Your task to perform on an android device: Go to settings Image 0: 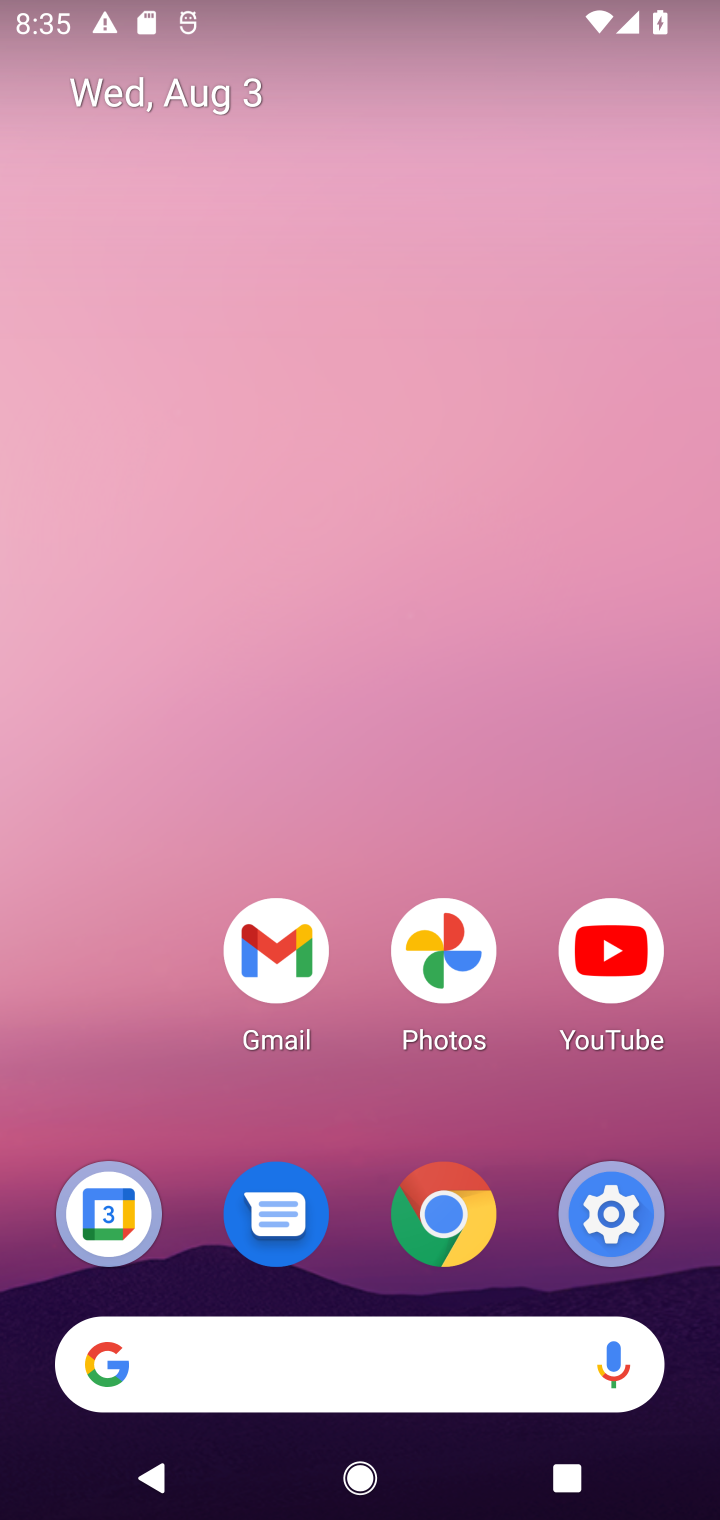
Step 0: click (619, 1225)
Your task to perform on an android device: Go to settings Image 1: 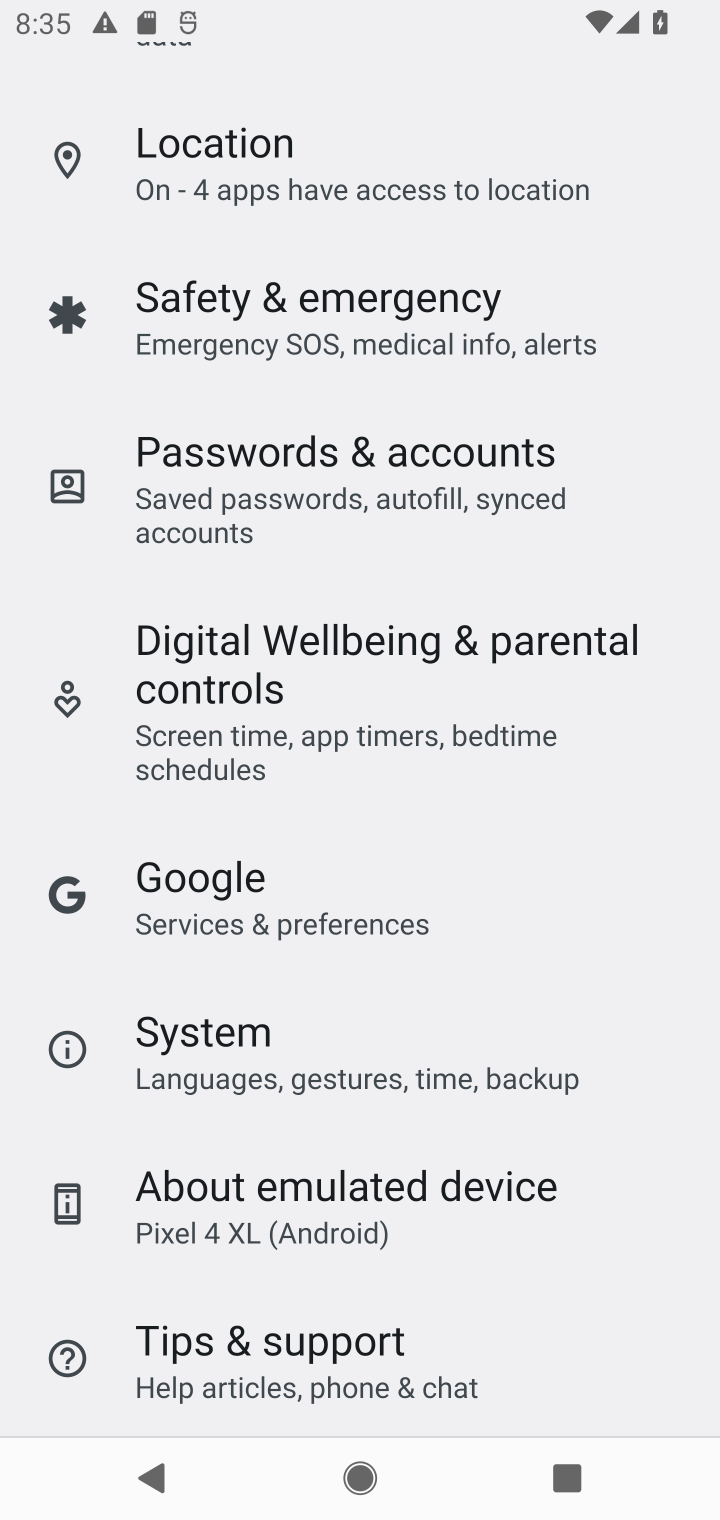
Step 1: task complete